Your task to perform on an android device: clear history in the chrome app Image 0: 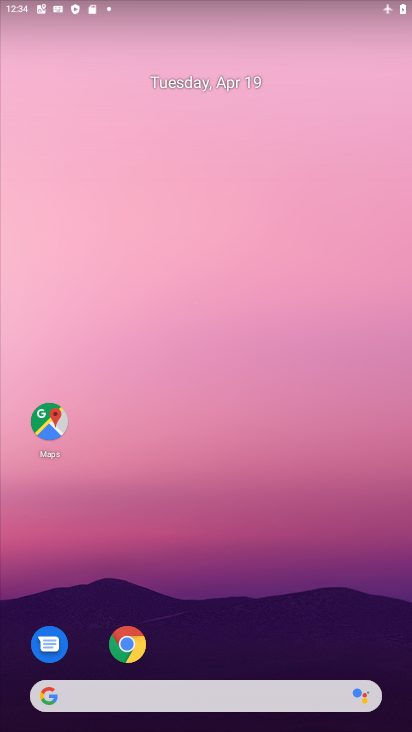
Step 0: click (137, 641)
Your task to perform on an android device: clear history in the chrome app Image 1: 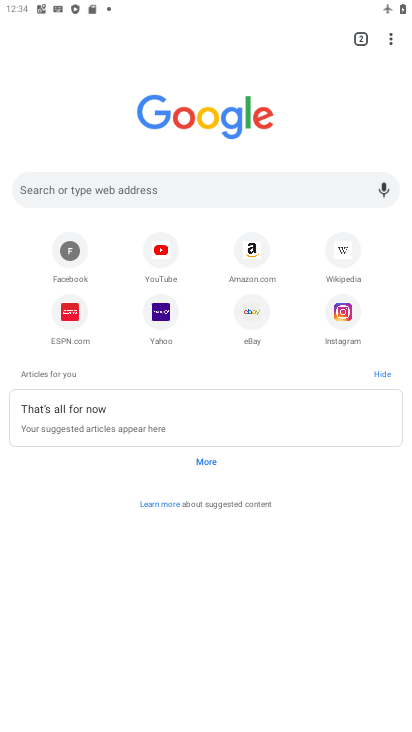
Step 1: click (391, 44)
Your task to perform on an android device: clear history in the chrome app Image 2: 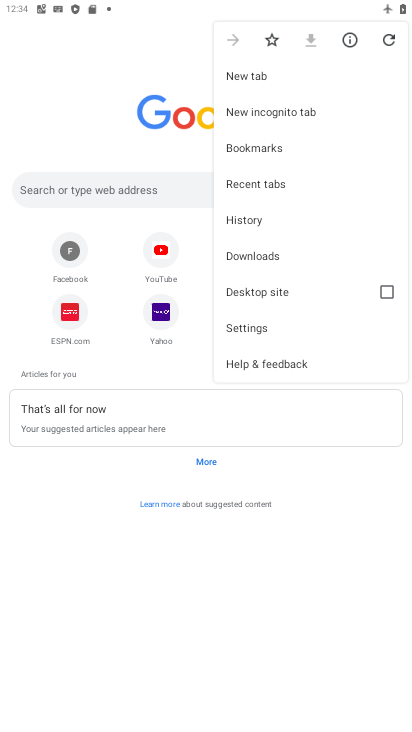
Step 2: click (299, 221)
Your task to perform on an android device: clear history in the chrome app Image 3: 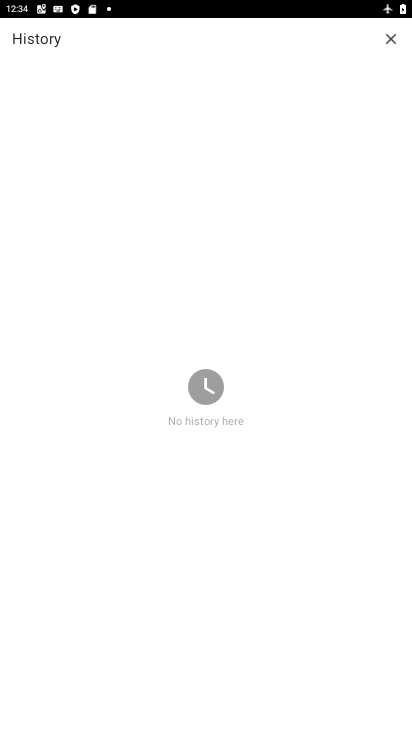
Step 3: task complete